Your task to perform on an android device: Open Chrome and go to the settings page Image 0: 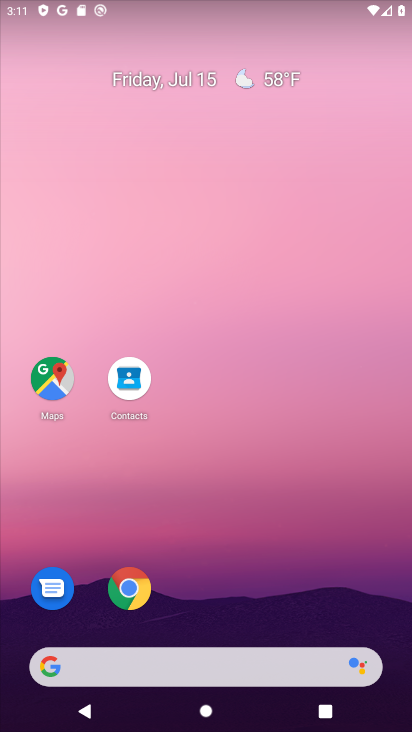
Step 0: click (119, 589)
Your task to perform on an android device: Open Chrome and go to the settings page Image 1: 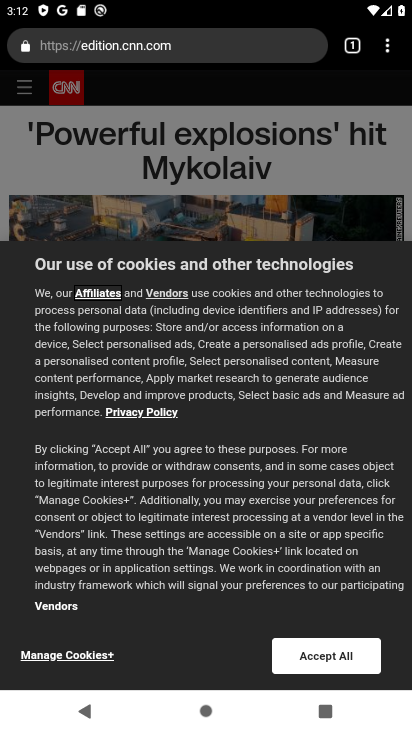
Step 1: click (393, 41)
Your task to perform on an android device: Open Chrome and go to the settings page Image 2: 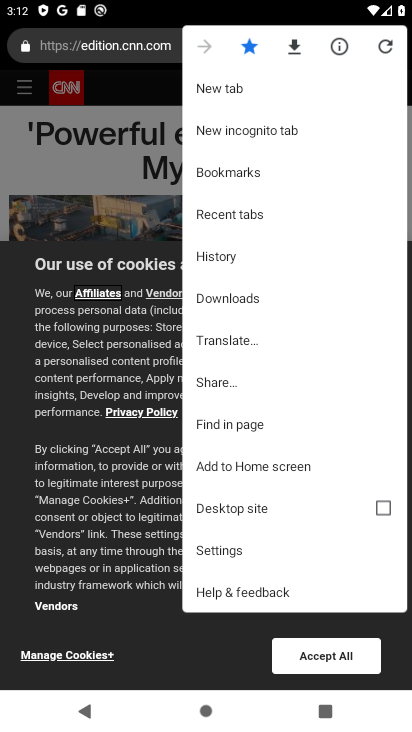
Step 2: click (291, 553)
Your task to perform on an android device: Open Chrome and go to the settings page Image 3: 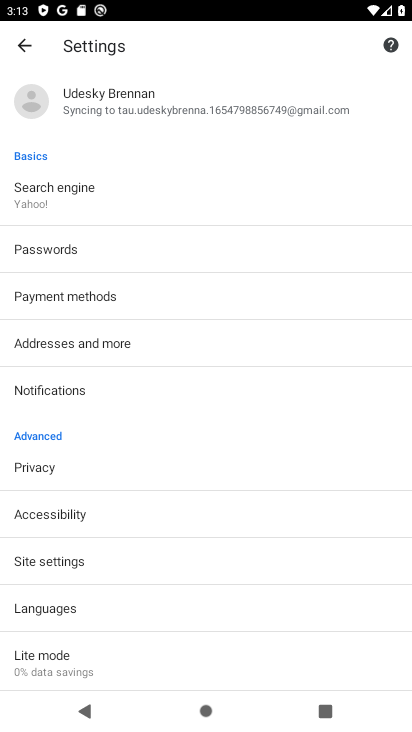
Step 3: task complete